Your task to perform on an android device: star an email in the gmail app Image 0: 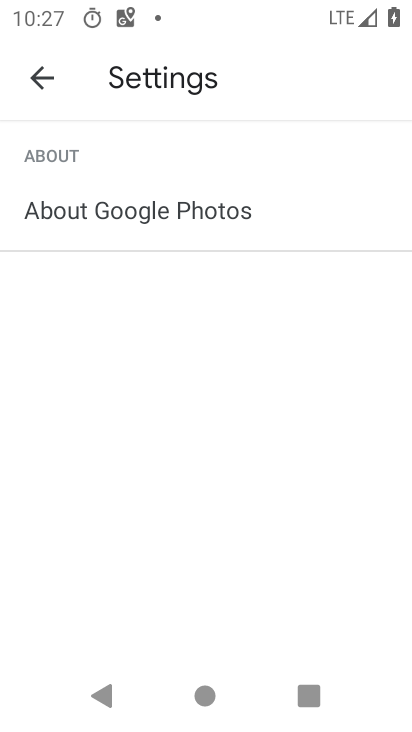
Step 0: press home button
Your task to perform on an android device: star an email in the gmail app Image 1: 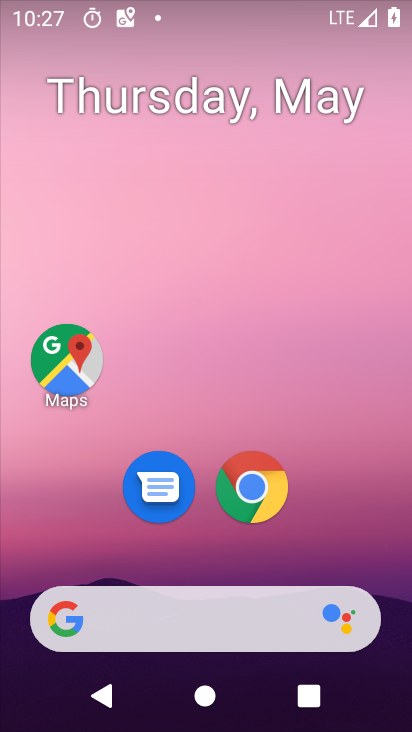
Step 1: drag from (158, 544) to (255, 109)
Your task to perform on an android device: star an email in the gmail app Image 2: 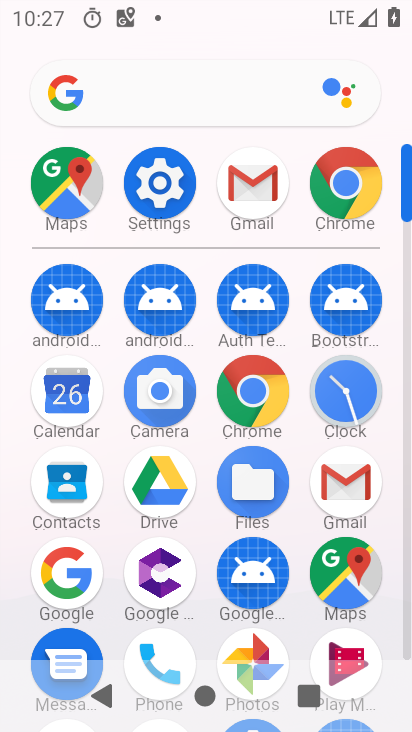
Step 2: click (343, 505)
Your task to perform on an android device: star an email in the gmail app Image 3: 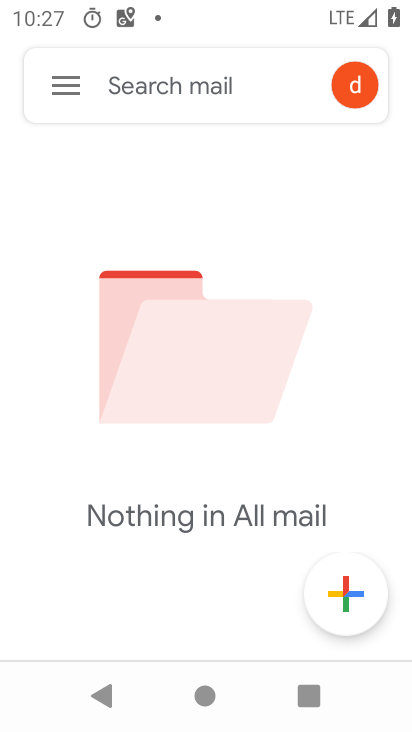
Step 3: click (56, 78)
Your task to perform on an android device: star an email in the gmail app Image 4: 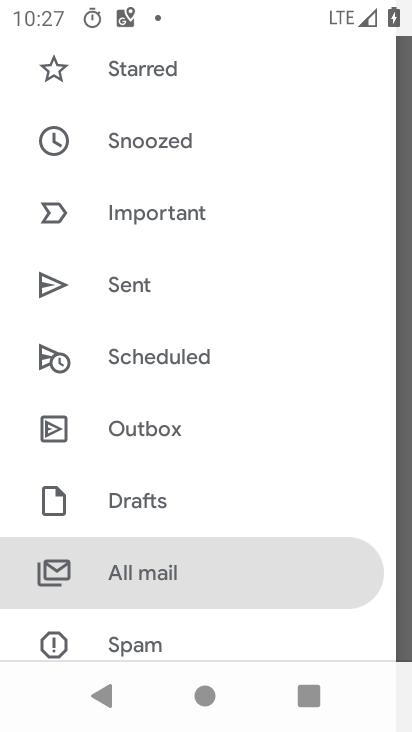
Step 4: click (235, 571)
Your task to perform on an android device: star an email in the gmail app Image 5: 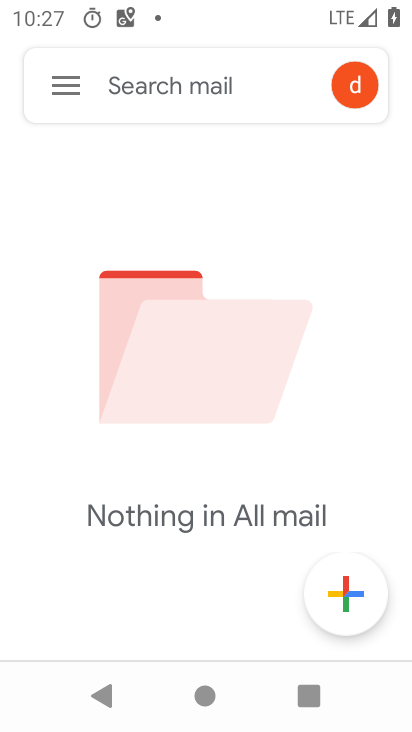
Step 5: task complete